Your task to perform on an android device: What's the weather going to be tomorrow? Image 0: 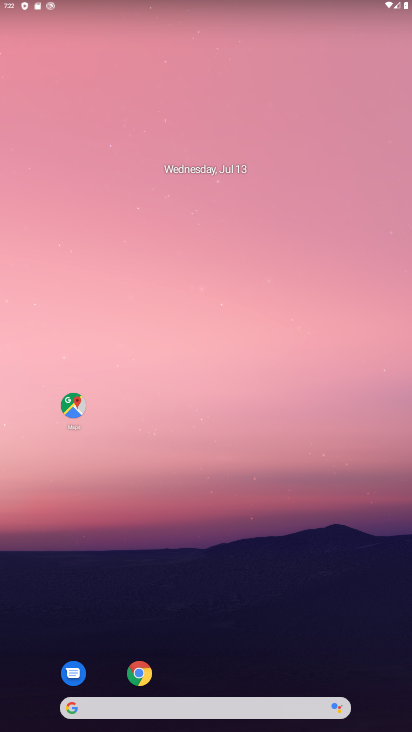
Step 0: click (198, 709)
Your task to perform on an android device: What's the weather going to be tomorrow? Image 1: 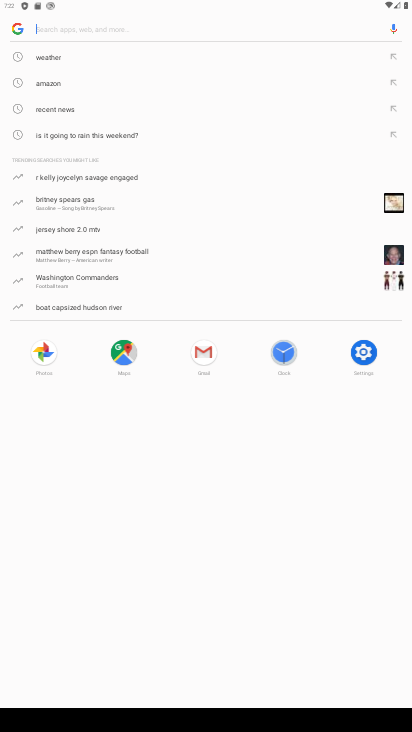
Step 1: click (43, 60)
Your task to perform on an android device: What's the weather going to be tomorrow? Image 2: 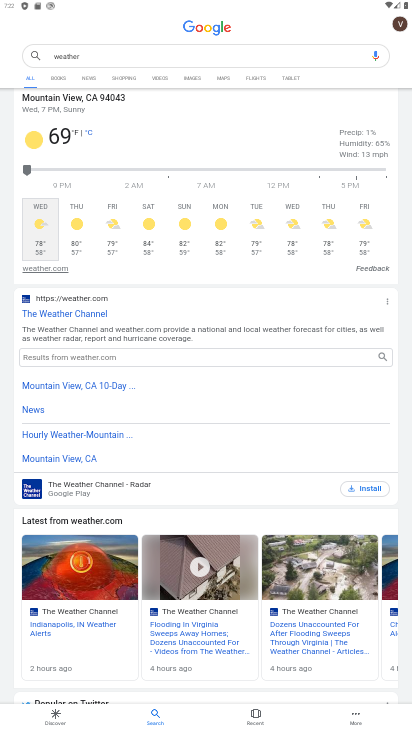
Step 2: task complete